Your task to perform on an android device: turn on sleep mode Image 0: 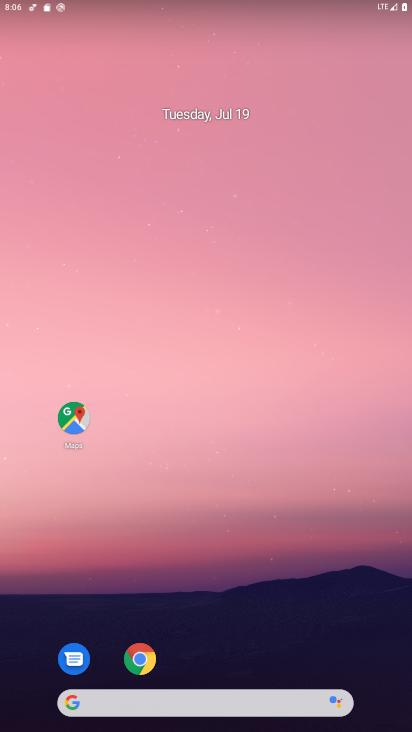
Step 0: drag from (191, 648) to (151, 2)
Your task to perform on an android device: turn on sleep mode Image 1: 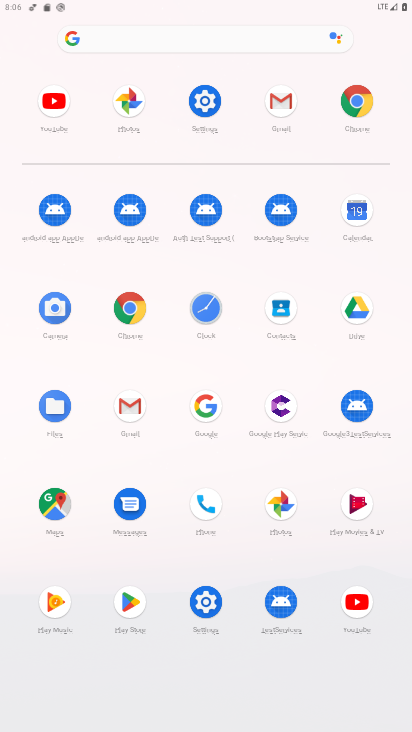
Step 1: click (198, 98)
Your task to perform on an android device: turn on sleep mode Image 2: 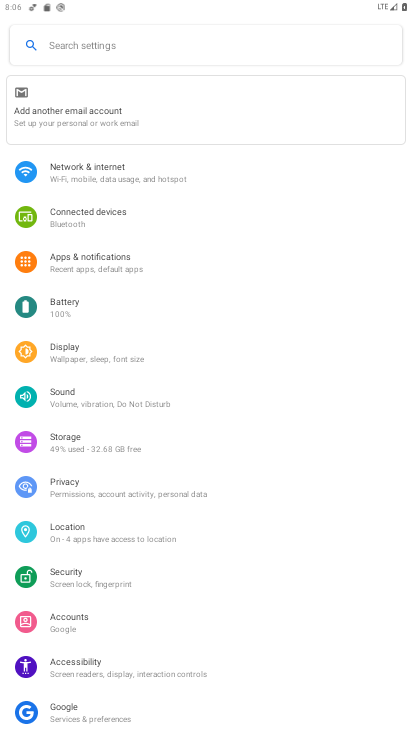
Step 2: click (110, 53)
Your task to perform on an android device: turn on sleep mode Image 3: 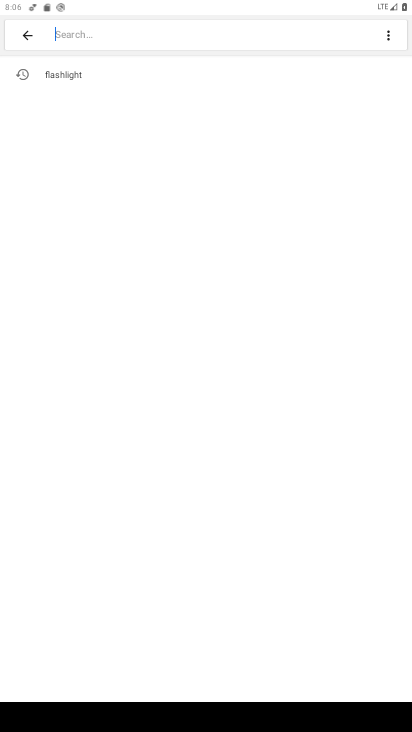
Step 3: type "sleep mode"
Your task to perform on an android device: turn on sleep mode Image 4: 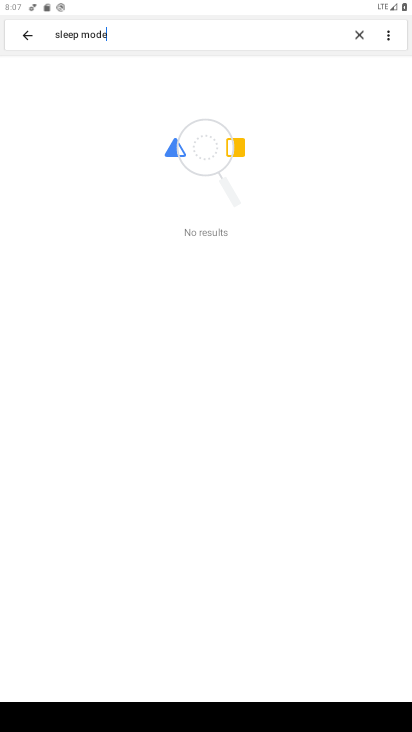
Step 4: task complete